Your task to perform on an android device: turn on the 24-hour format for clock Image 0: 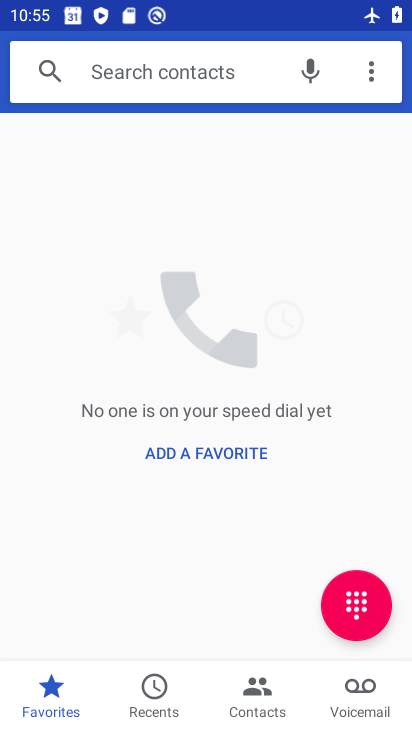
Step 0: press home button
Your task to perform on an android device: turn on the 24-hour format for clock Image 1: 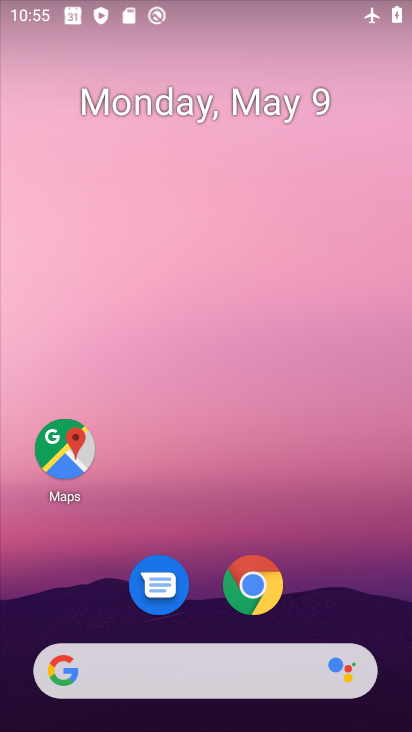
Step 1: drag from (306, 510) to (168, 92)
Your task to perform on an android device: turn on the 24-hour format for clock Image 2: 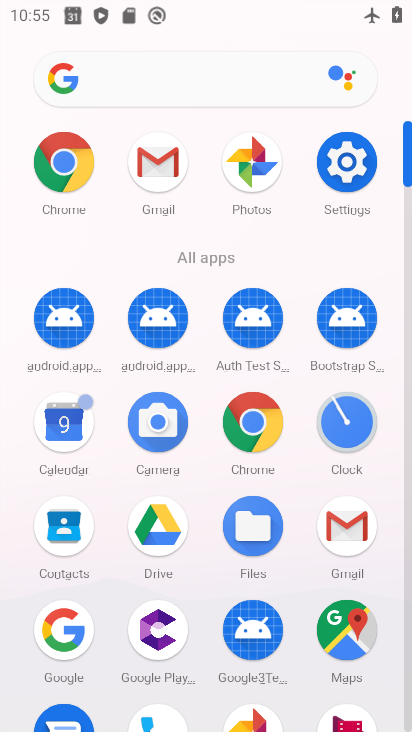
Step 2: click (342, 416)
Your task to perform on an android device: turn on the 24-hour format for clock Image 3: 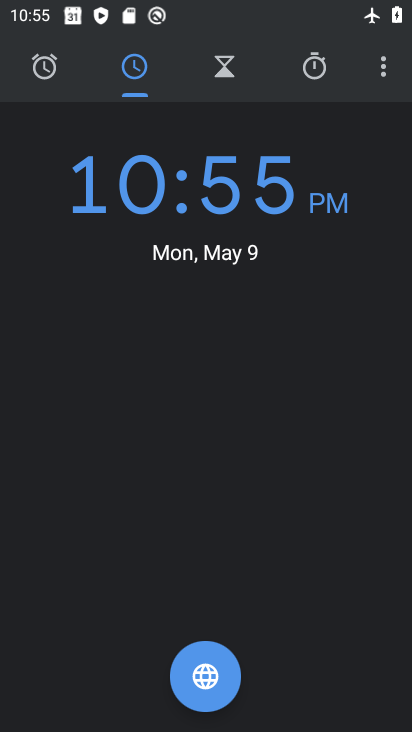
Step 3: click (380, 65)
Your task to perform on an android device: turn on the 24-hour format for clock Image 4: 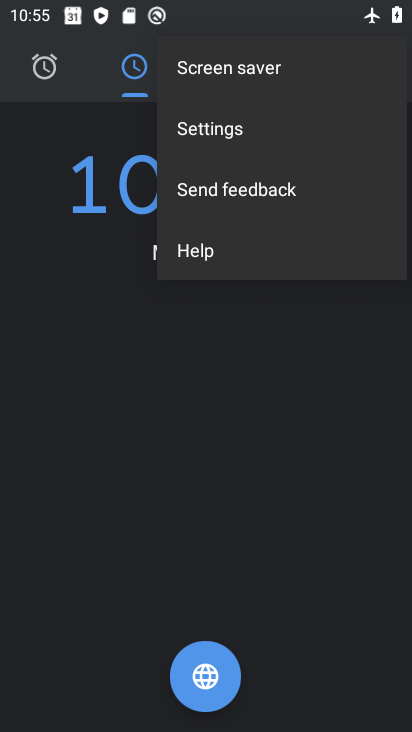
Step 4: click (304, 142)
Your task to perform on an android device: turn on the 24-hour format for clock Image 5: 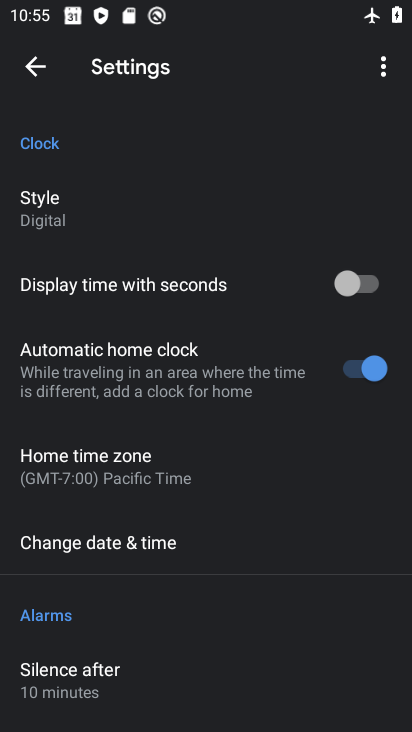
Step 5: click (230, 543)
Your task to perform on an android device: turn on the 24-hour format for clock Image 6: 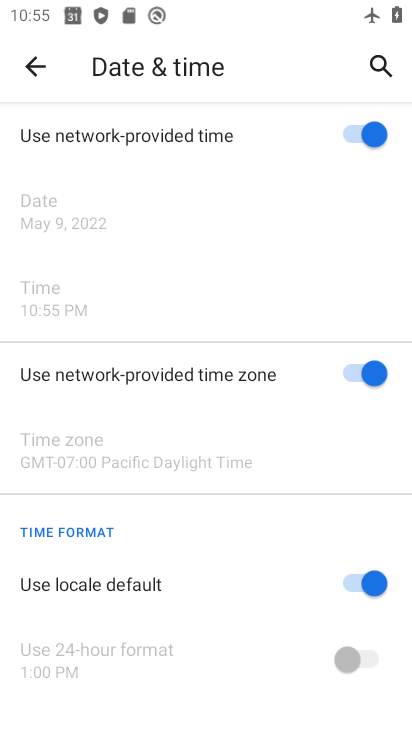
Step 6: click (354, 582)
Your task to perform on an android device: turn on the 24-hour format for clock Image 7: 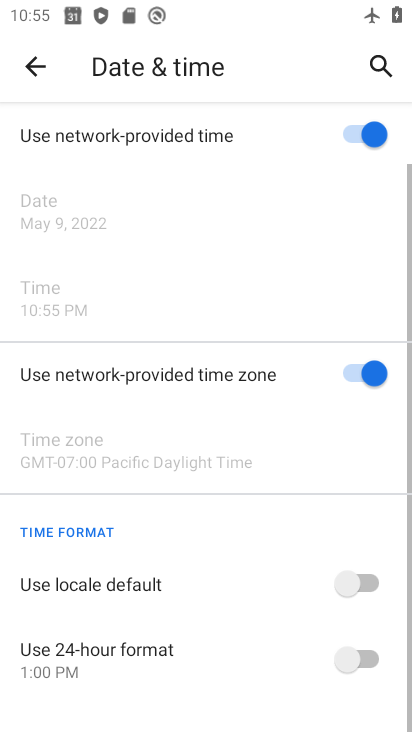
Step 7: click (372, 653)
Your task to perform on an android device: turn on the 24-hour format for clock Image 8: 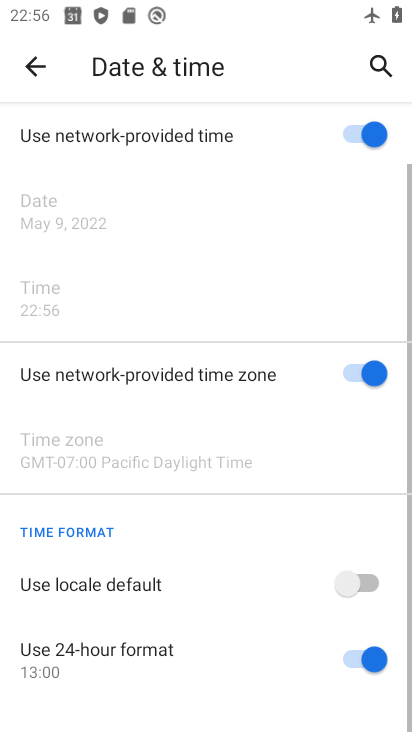
Step 8: task complete